Your task to perform on an android device: Open Google Chrome Image 0: 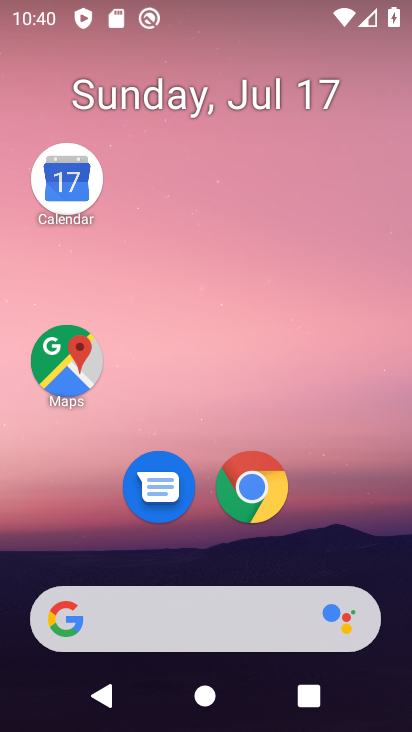
Step 0: click (261, 465)
Your task to perform on an android device: Open Google Chrome Image 1: 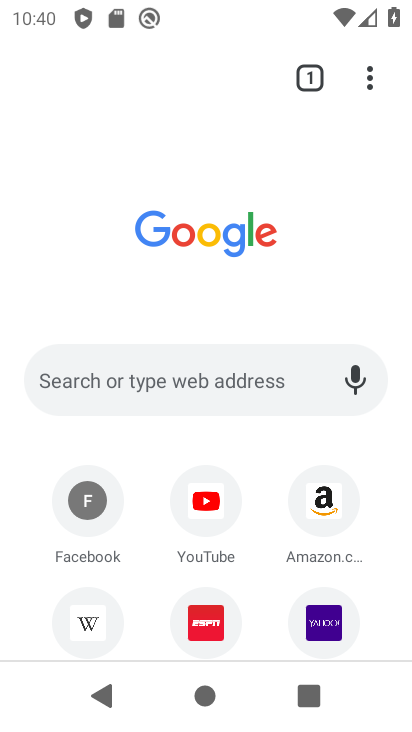
Step 1: task complete